Your task to perform on an android device: empty trash in google photos Image 0: 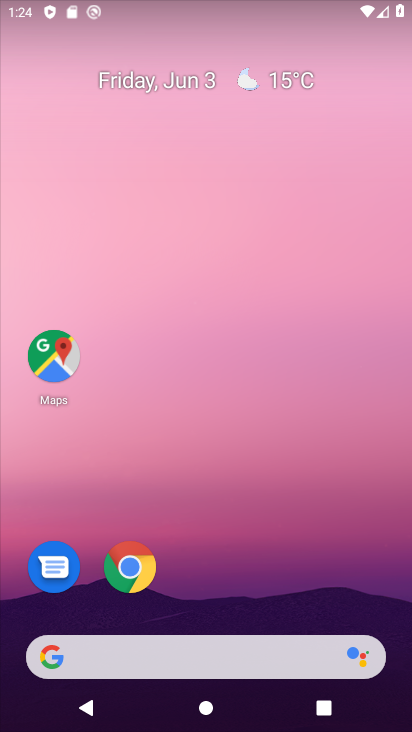
Step 0: drag from (176, 635) to (236, 187)
Your task to perform on an android device: empty trash in google photos Image 1: 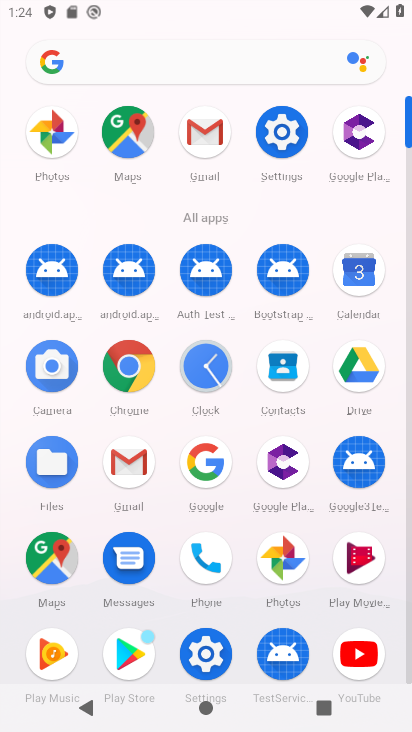
Step 1: click (282, 557)
Your task to perform on an android device: empty trash in google photos Image 2: 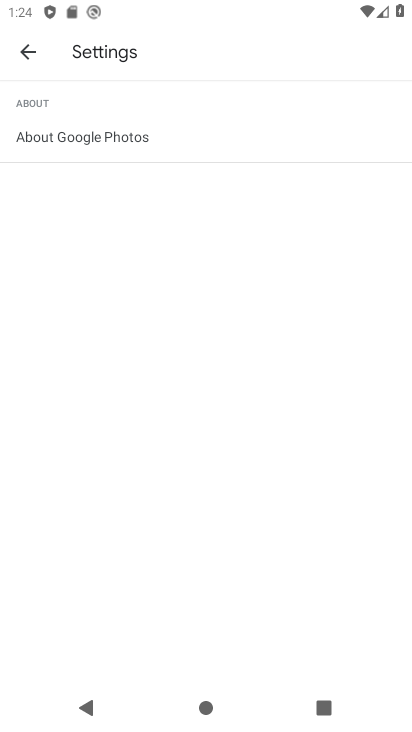
Step 2: click (26, 46)
Your task to perform on an android device: empty trash in google photos Image 3: 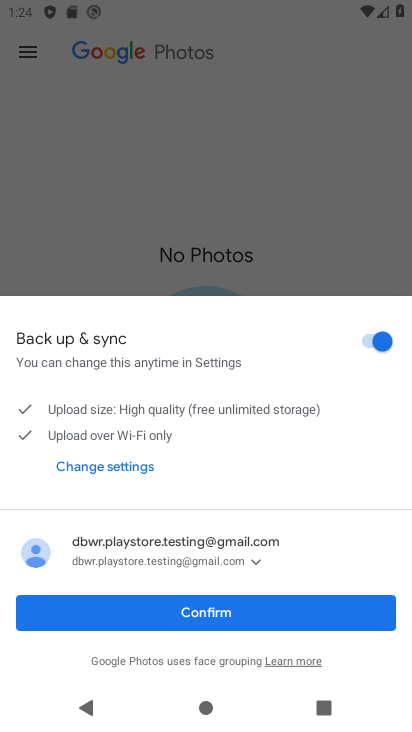
Step 3: click (219, 608)
Your task to perform on an android device: empty trash in google photos Image 4: 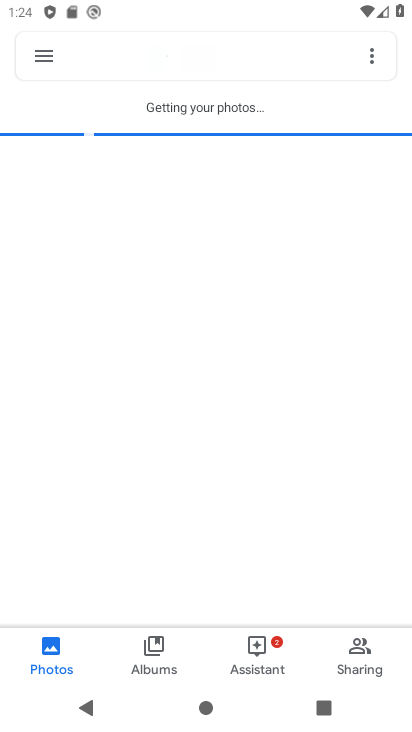
Step 4: click (40, 59)
Your task to perform on an android device: empty trash in google photos Image 5: 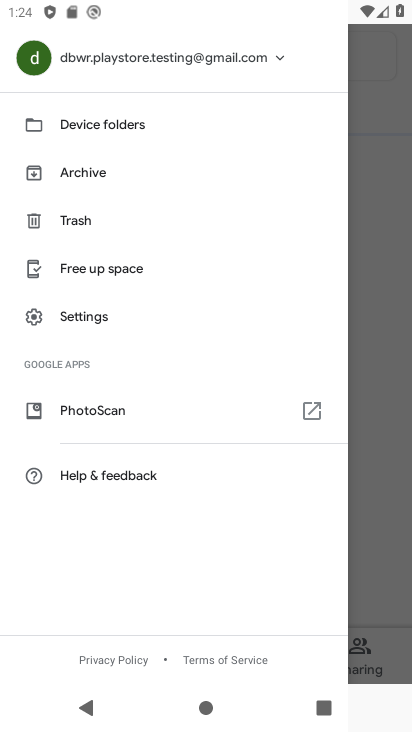
Step 5: click (78, 222)
Your task to perform on an android device: empty trash in google photos Image 6: 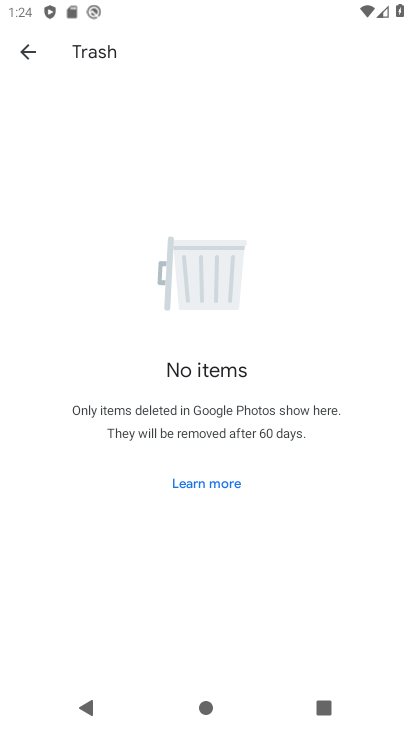
Step 6: task complete